Your task to perform on an android device: Search for "bose quietcomfort 35" on bestbuy, select the first entry, add it to the cart, then select checkout. Image 0: 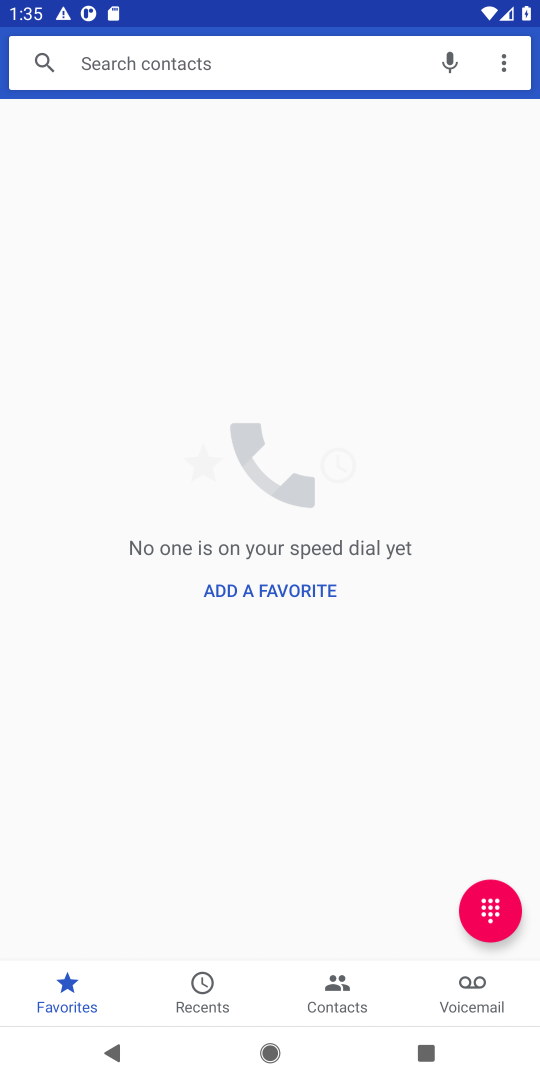
Step 0: press home button
Your task to perform on an android device: Search for "bose quietcomfort 35" on bestbuy, select the first entry, add it to the cart, then select checkout. Image 1: 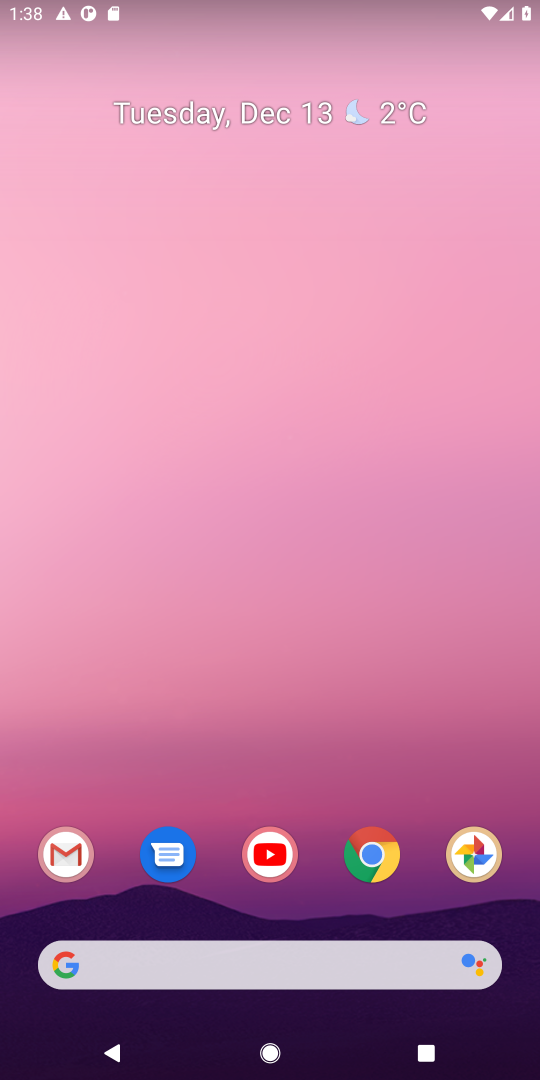
Step 1: task complete